Your task to perform on an android device: Open Android settings Image 0: 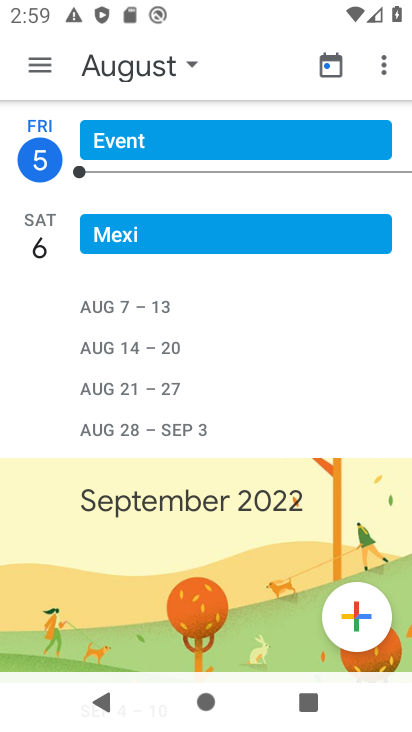
Step 0: press home button
Your task to perform on an android device: Open Android settings Image 1: 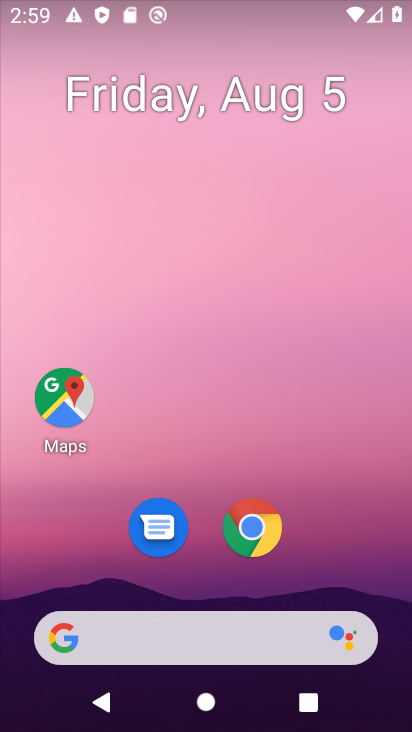
Step 1: drag from (219, 591) to (162, 127)
Your task to perform on an android device: Open Android settings Image 2: 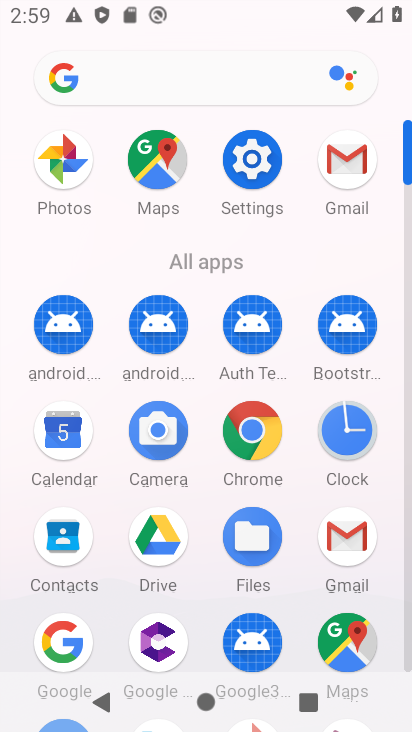
Step 2: click (241, 168)
Your task to perform on an android device: Open Android settings Image 3: 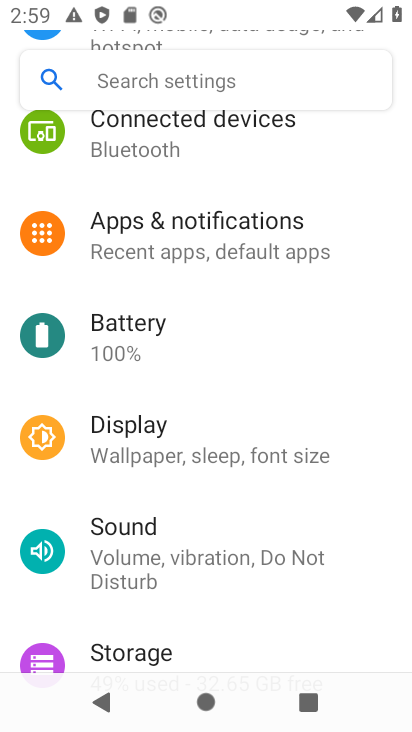
Step 3: task complete